Your task to perform on an android device: turn off sleep mode Image 0: 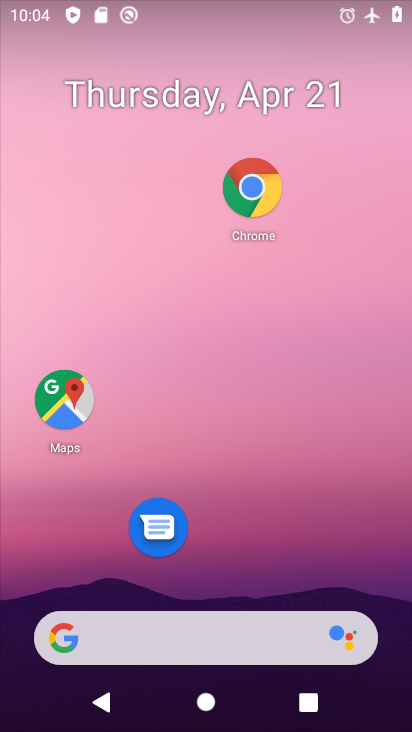
Step 0: drag from (262, 522) to (330, 1)
Your task to perform on an android device: turn off sleep mode Image 1: 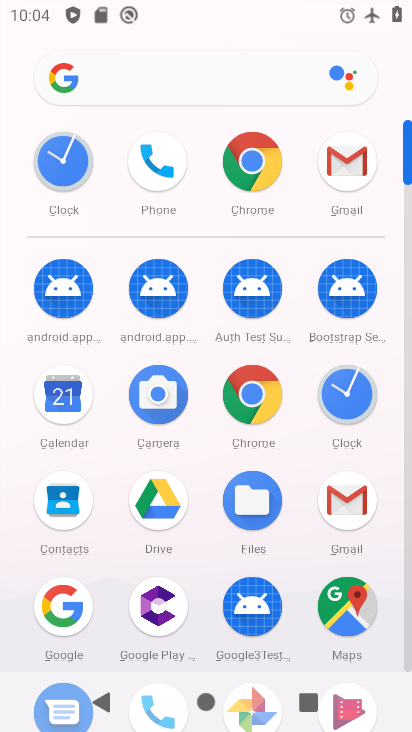
Step 1: drag from (289, 395) to (349, 10)
Your task to perform on an android device: turn off sleep mode Image 2: 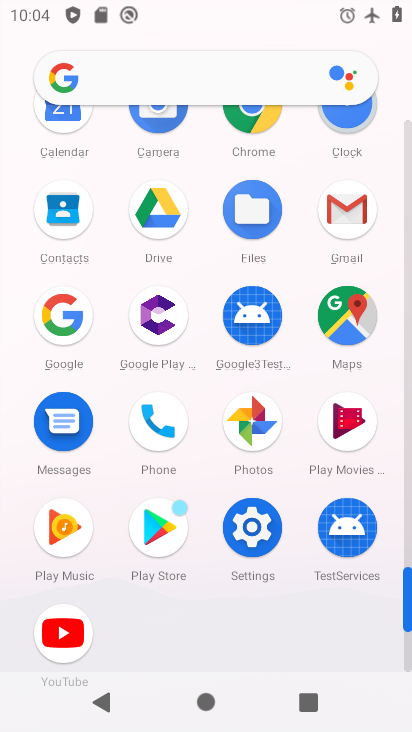
Step 2: click (257, 534)
Your task to perform on an android device: turn off sleep mode Image 3: 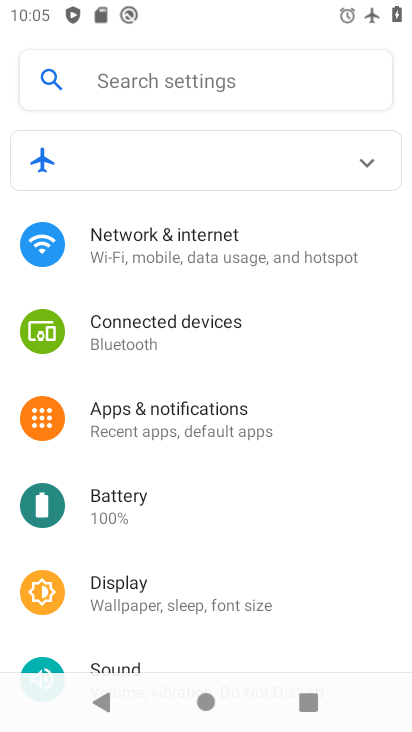
Step 3: click (193, 597)
Your task to perform on an android device: turn off sleep mode Image 4: 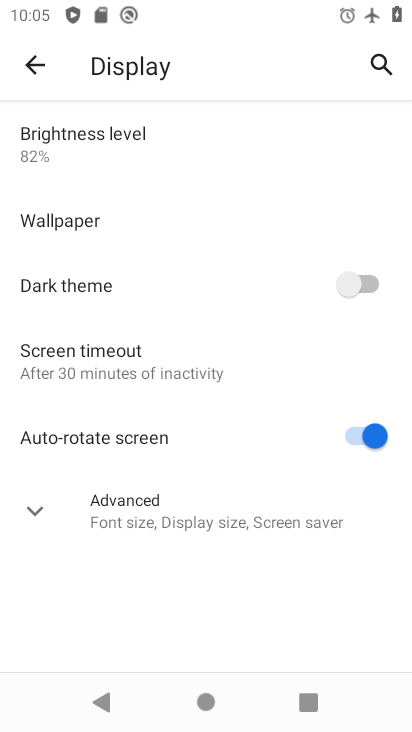
Step 4: click (233, 515)
Your task to perform on an android device: turn off sleep mode Image 5: 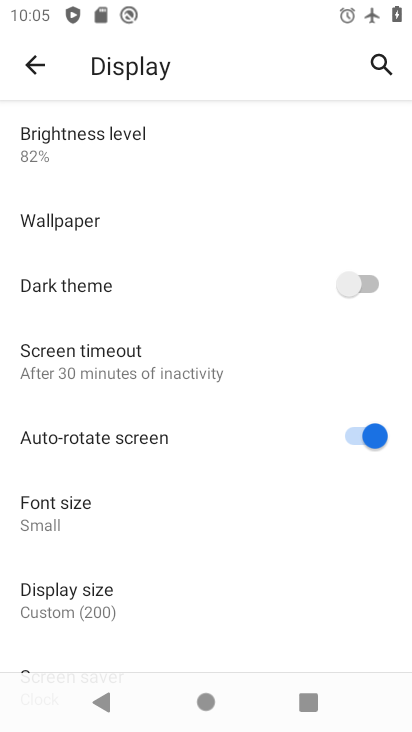
Step 5: task complete